Your task to perform on an android device: clear all cookies in the chrome app Image 0: 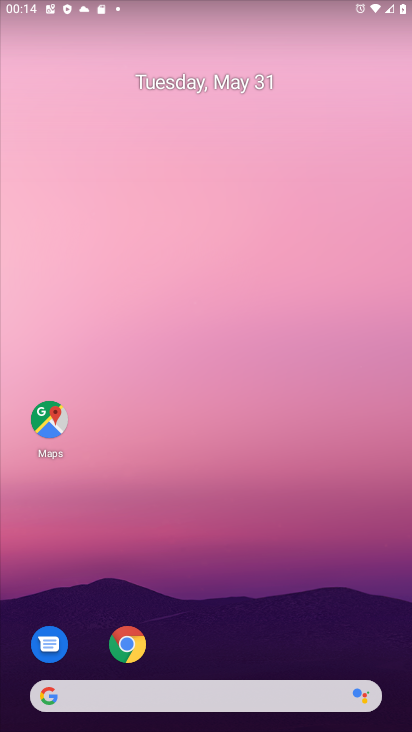
Step 0: click (126, 643)
Your task to perform on an android device: clear all cookies in the chrome app Image 1: 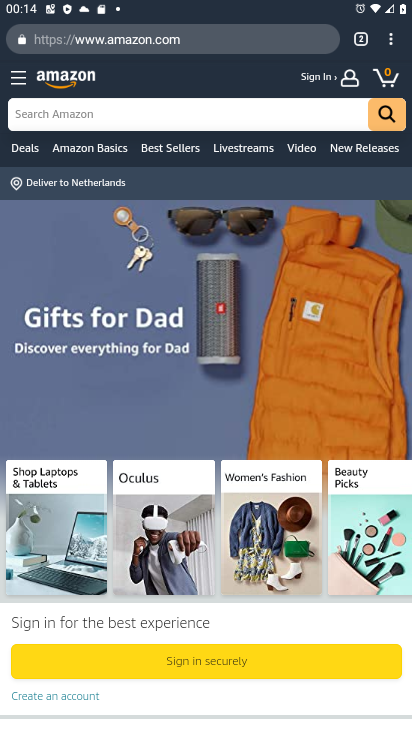
Step 1: click (391, 45)
Your task to perform on an android device: clear all cookies in the chrome app Image 2: 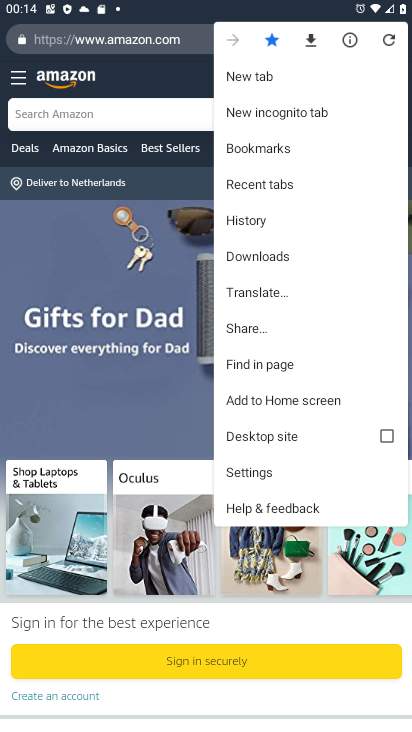
Step 2: click (245, 221)
Your task to perform on an android device: clear all cookies in the chrome app Image 3: 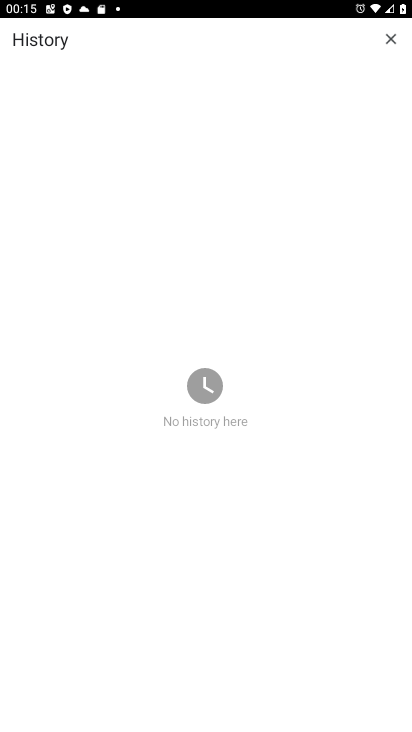
Step 3: task complete